Your task to perform on an android device: turn on javascript in the chrome app Image 0: 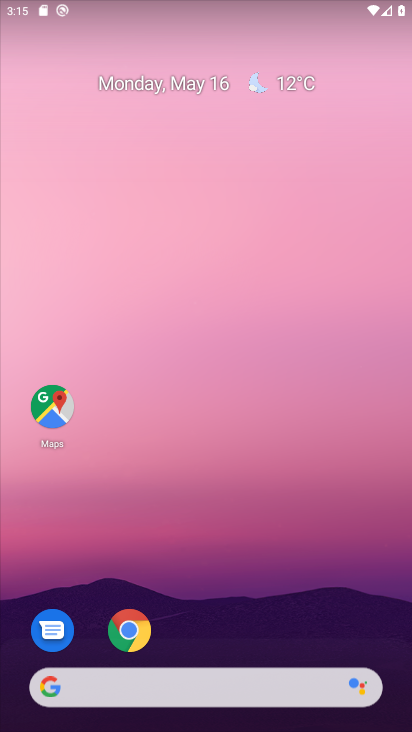
Step 0: click (124, 632)
Your task to perform on an android device: turn on javascript in the chrome app Image 1: 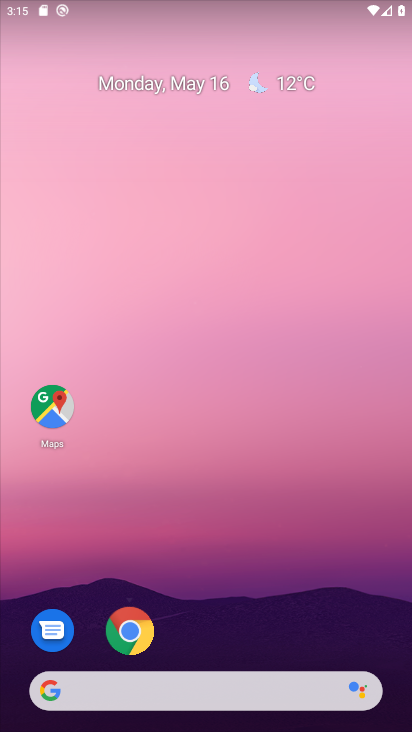
Step 1: click (127, 632)
Your task to perform on an android device: turn on javascript in the chrome app Image 2: 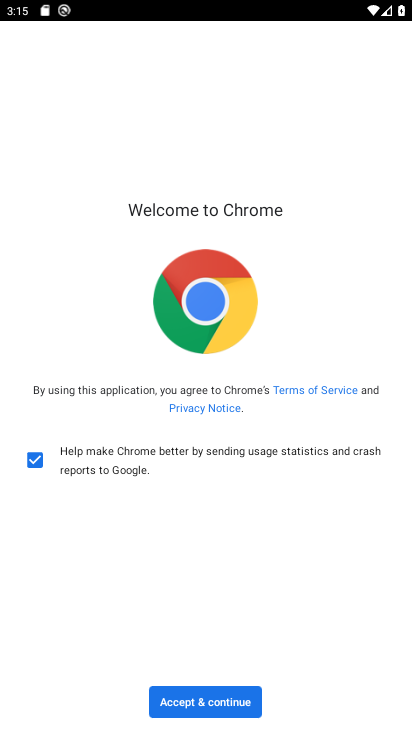
Step 2: click (226, 709)
Your task to perform on an android device: turn on javascript in the chrome app Image 3: 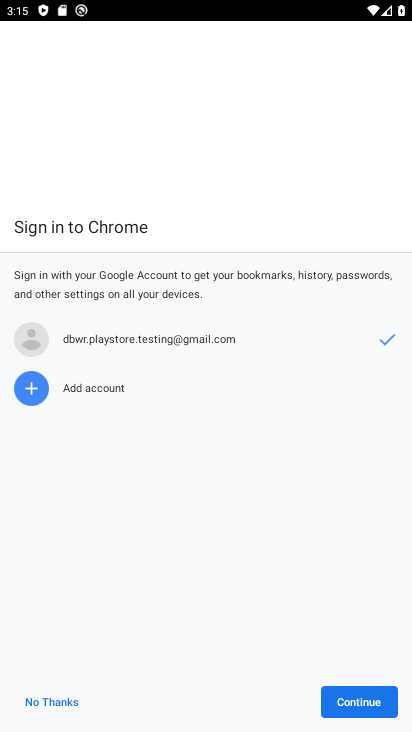
Step 3: click (355, 706)
Your task to perform on an android device: turn on javascript in the chrome app Image 4: 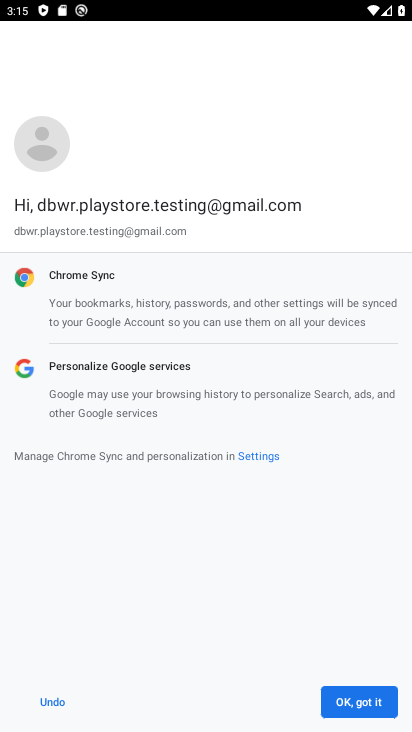
Step 4: click (356, 698)
Your task to perform on an android device: turn on javascript in the chrome app Image 5: 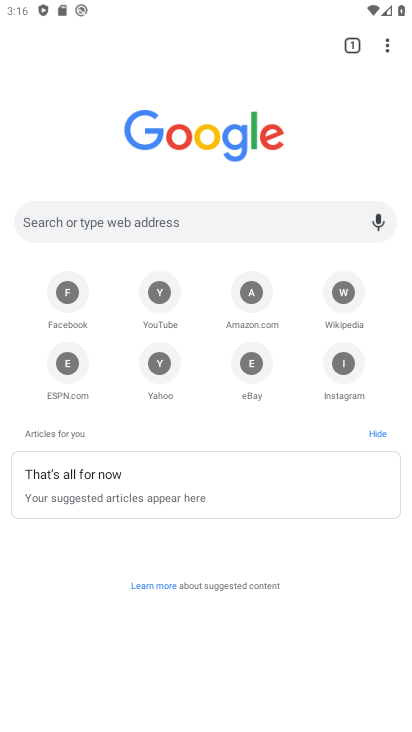
Step 5: drag from (395, 43) to (308, 376)
Your task to perform on an android device: turn on javascript in the chrome app Image 6: 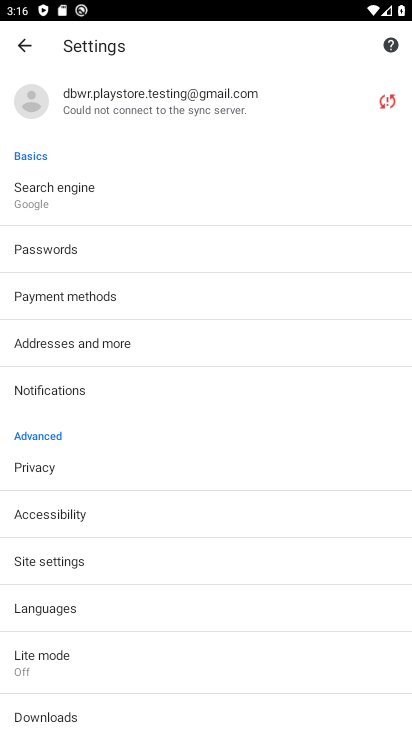
Step 6: click (96, 567)
Your task to perform on an android device: turn on javascript in the chrome app Image 7: 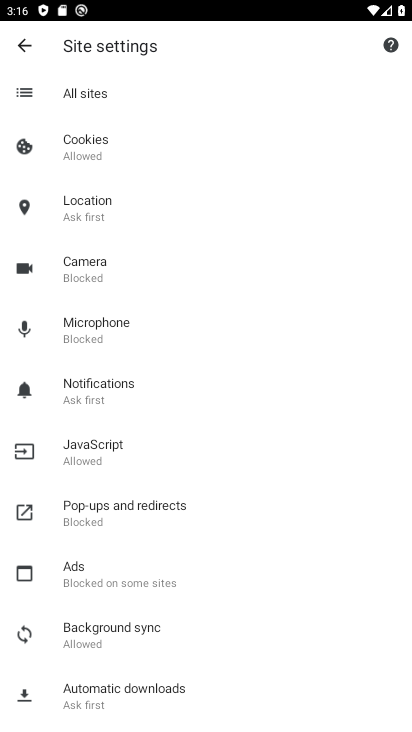
Step 7: click (168, 451)
Your task to perform on an android device: turn on javascript in the chrome app Image 8: 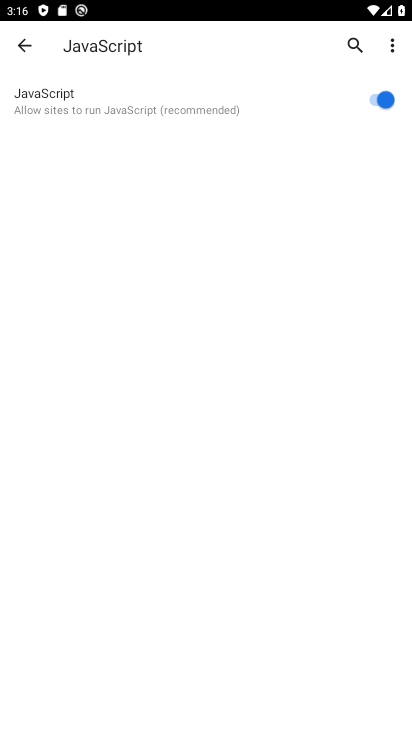
Step 8: task complete